Your task to perform on an android device: move a message to another label in the gmail app Image 0: 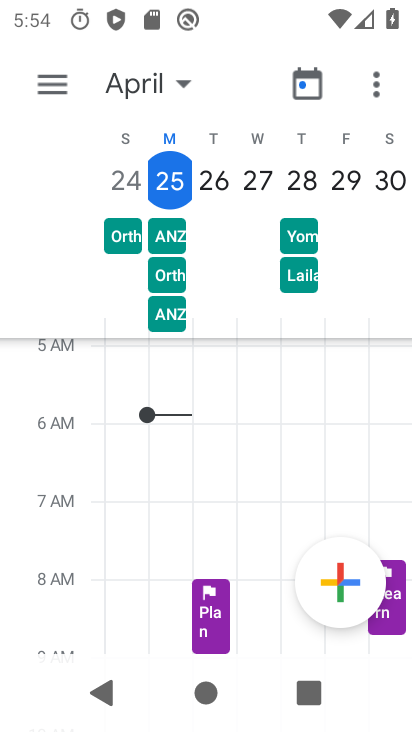
Step 0: press home button
Your task to perform on an android device: move a message to another label in the gmail app Image 1: 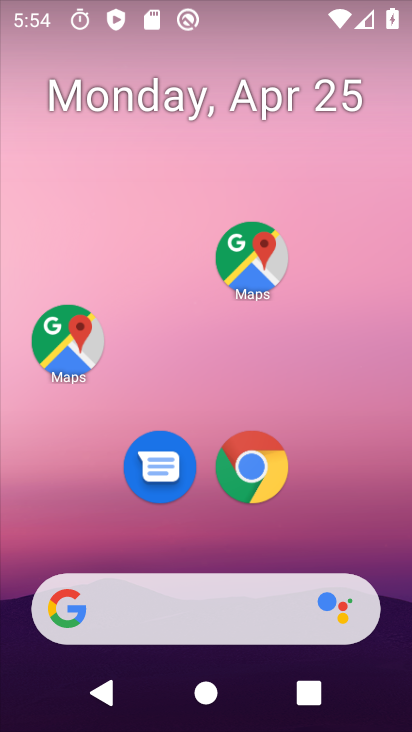
Step 1: drag from (254, 586) to (247, 32)
Your task to perform on an android device: move a message to another label in the gmail app Image 2: 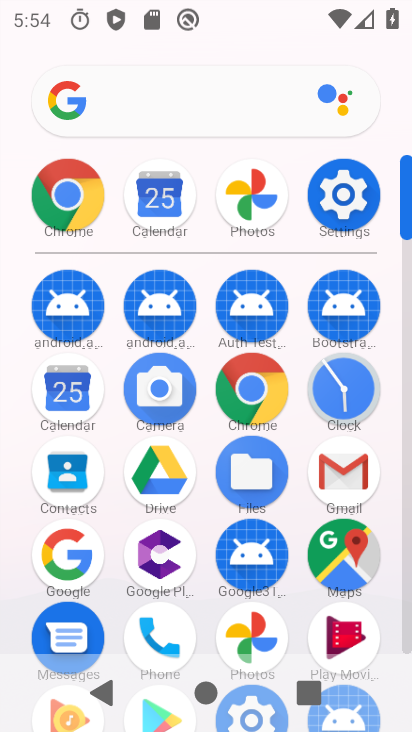
Step 2: click (348, 471)
Your task to perform on an android device: move a message to another label in the gmail app Image 3: 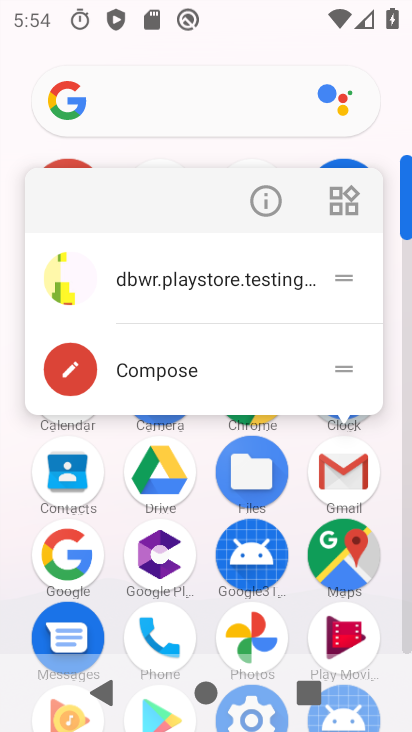
Step 3: click (348, 471)
Your task to perform on an android device: move a message to another label in the gmail app Image 4: 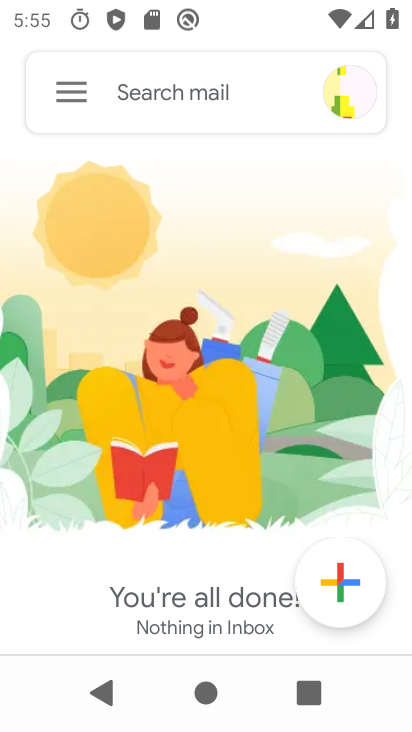
Step 4: task complete